Your task to perform on an android device: Go to ESPN.com Image 0: 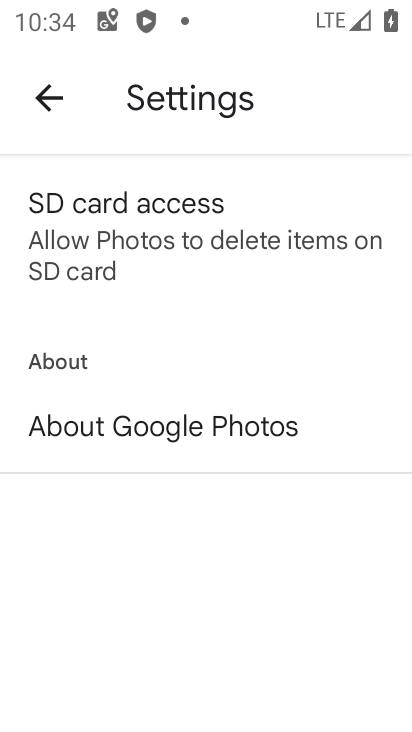
Step 0: press home button
Your task to perform on an android device: Go to ESPN.com Image 1: 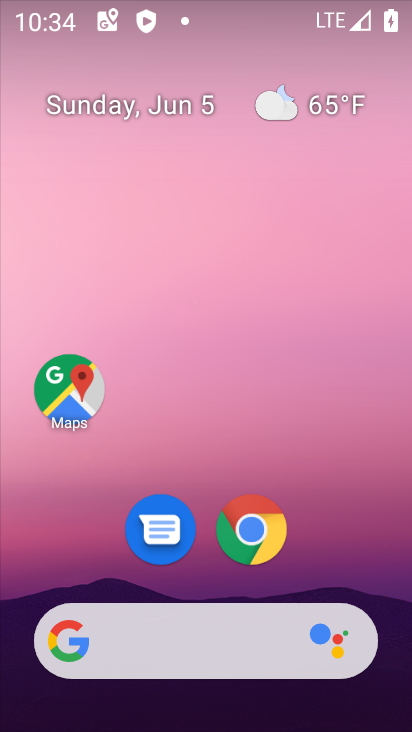
Step 1: click (225, 644)
Your task to perform on an android device: Go to ESPN.com Image 2: 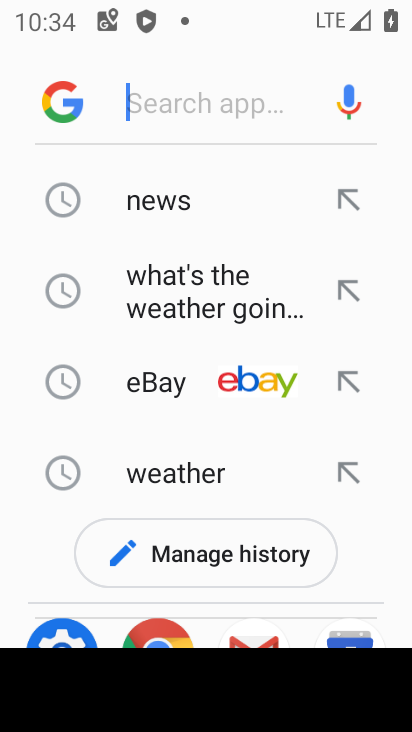
Step 2: type "espn.com"
Your task to perform on an android device: Go to ESPN.com Image 3: 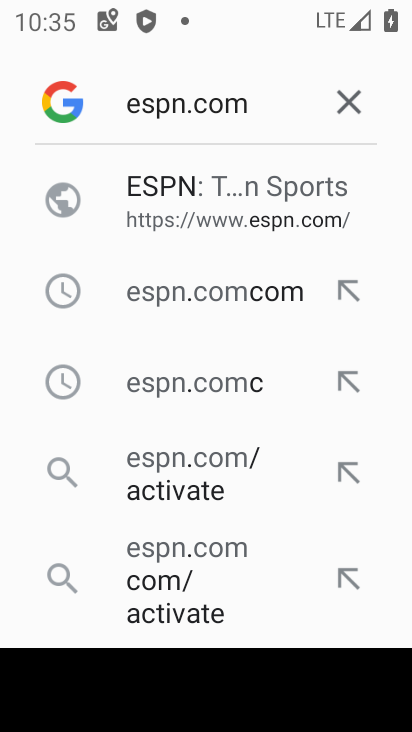
Step 3: click (228, 221)
Your task to perform on an android device: Go to ESPN.com Image 4: 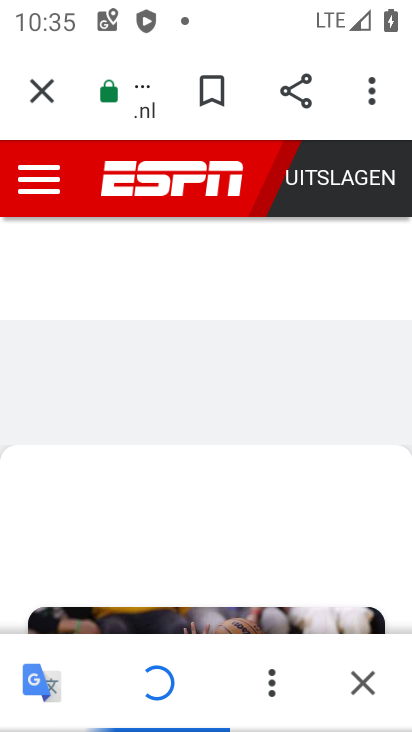
Step 4: task complete